Your task to perform on an android device: What's the weather going to be tomorrow? Image 0: 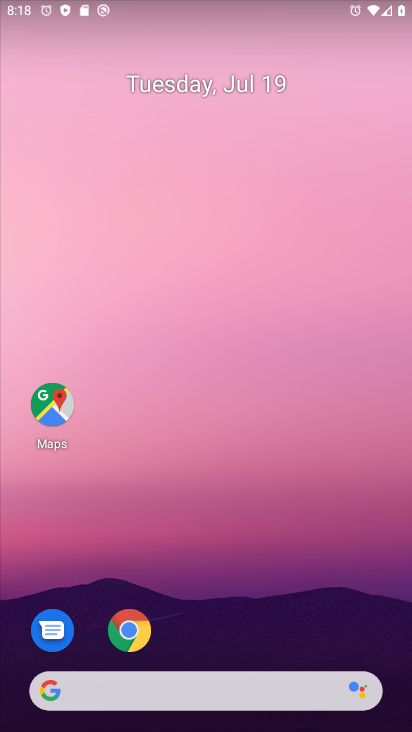
Step 0: click (239, 690)
Your task to perform on an android device: What's the weather going to be tomorrow? Image 1: 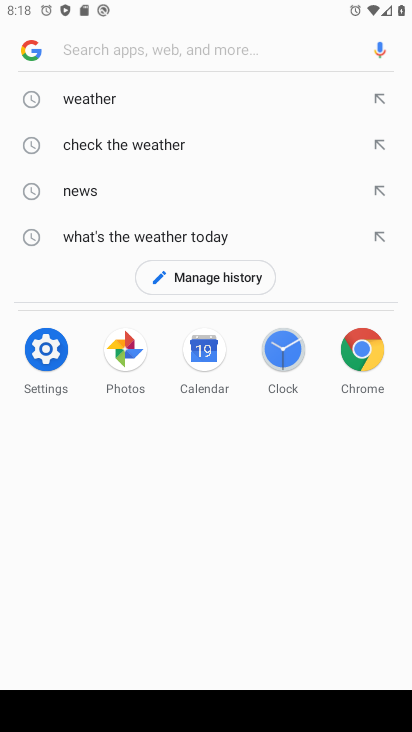
Step 1: type "What's the weather going to be tomorrow?"
Your task to perform on an android device: What's the weather going to be tomorrow? Image 2: 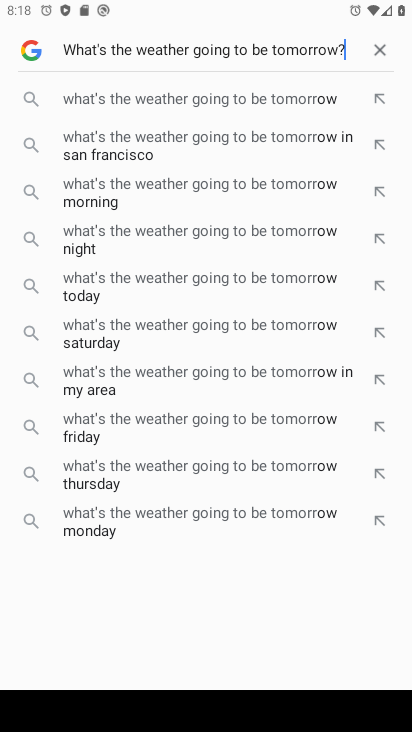
Step 2: press enter
Your task to perform on an android device: What's the weather going to be tomorrow? Image 3: 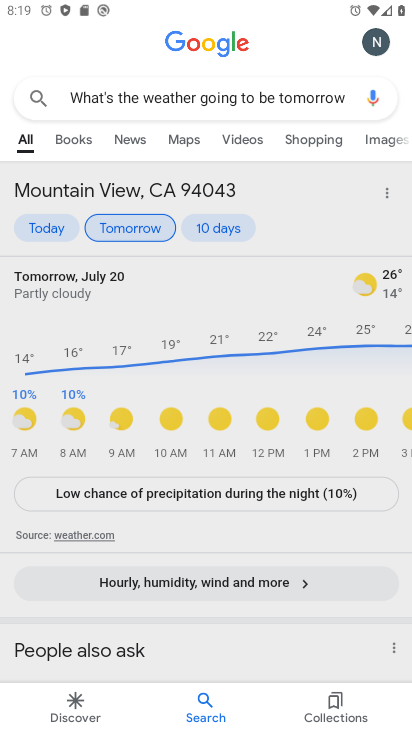
Step 3: task complete